Your task to perform on an android device: check android version Image 0: 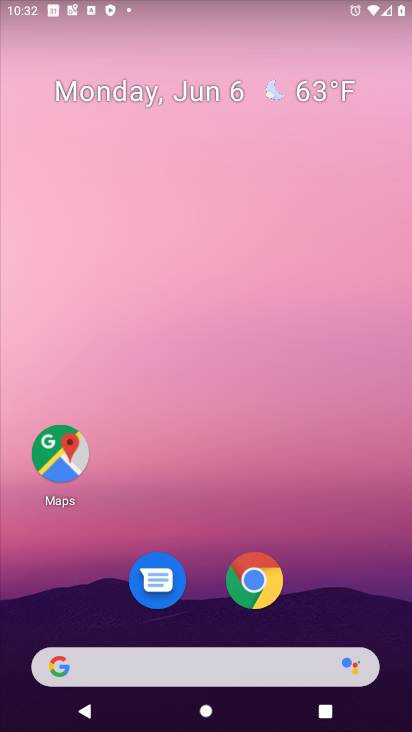
Step 0: drag from (348, 605) to (276, 33)
Your task to perform on an android device: check android version Image 1: 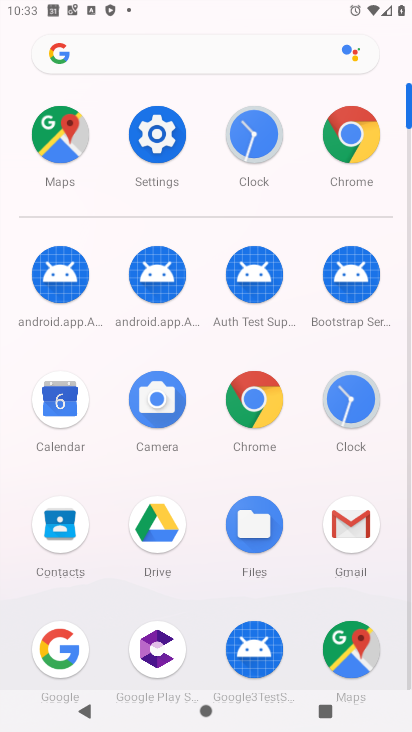
Step 1: click (175, 136)
Your task to perform on an android device: check android version Image 2: 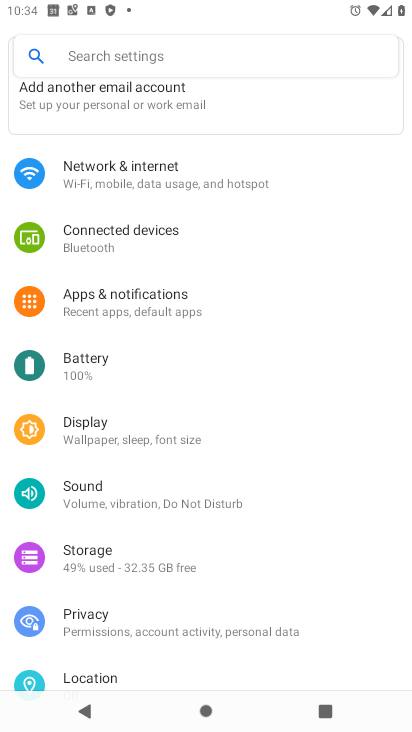
Step 2: drag from (116, 611) to (158, 12)
Your task to perform on an android device: check android version Image 3: 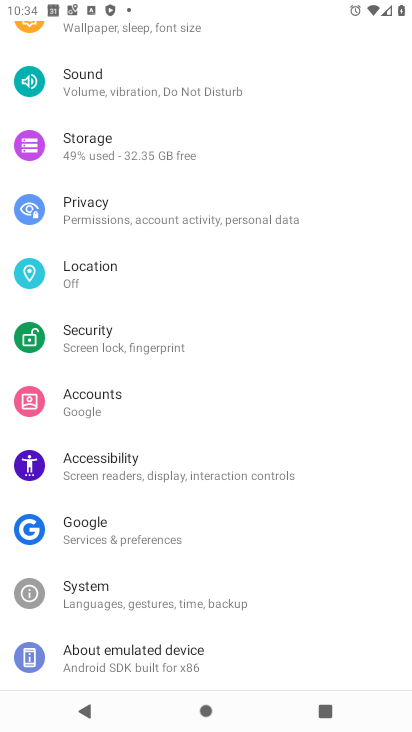
Step 3: drag from (216, 612) to (274, 153)
Your task to perform on an android device: check android version Image 4: 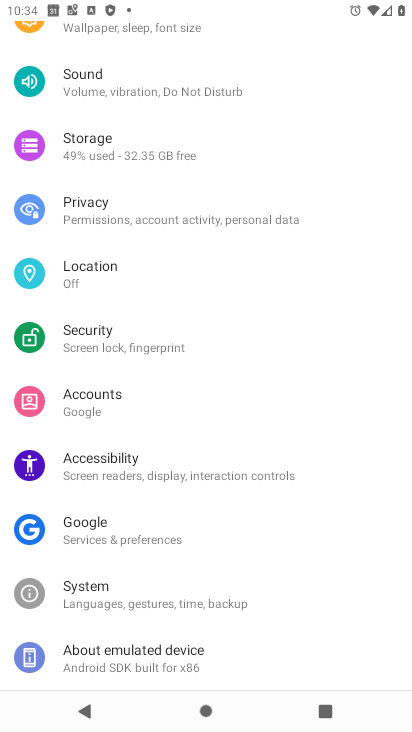
Step 4: drag from (219, 620) to (245, 165)
Your task to perform on an android device: check android version Image 5: 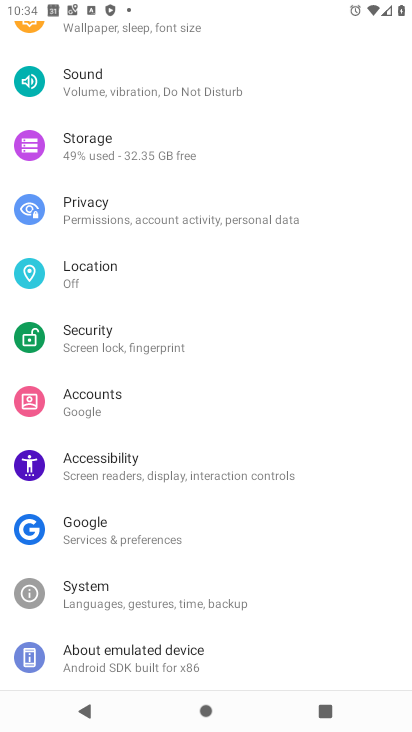
Step 5: drag from (209, 613) to (209, 119)
Your task to perform on an android device: check android version Image 6: 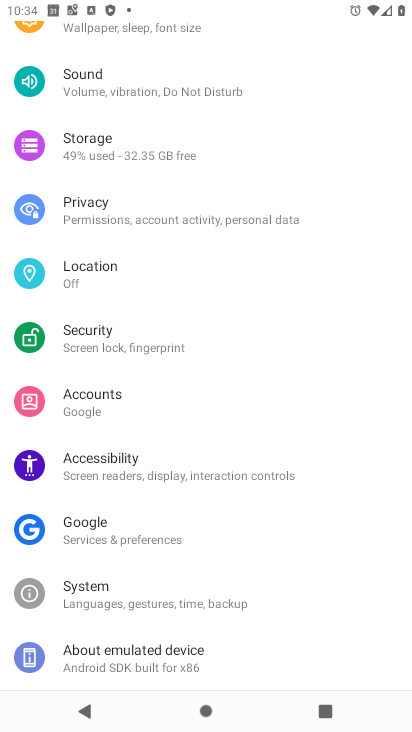
Step 6: click (158, 654)
Your task to perform on an android device: check android version Image 7: 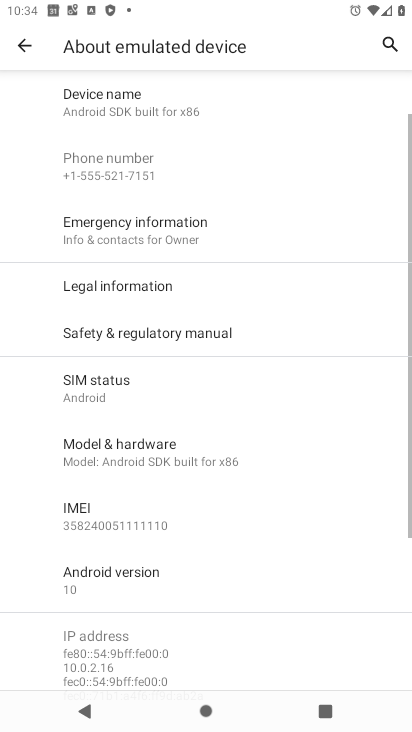
Step 7: drag from (130, 593) to (147, 58)
Your task to perform on an android device: check android version Image 8: 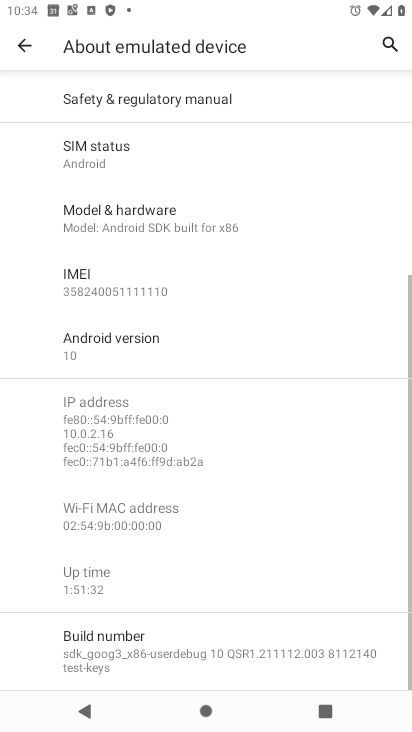
Step 8: click (82, 345)
Your task to perform on an android device: check android version Image 9: 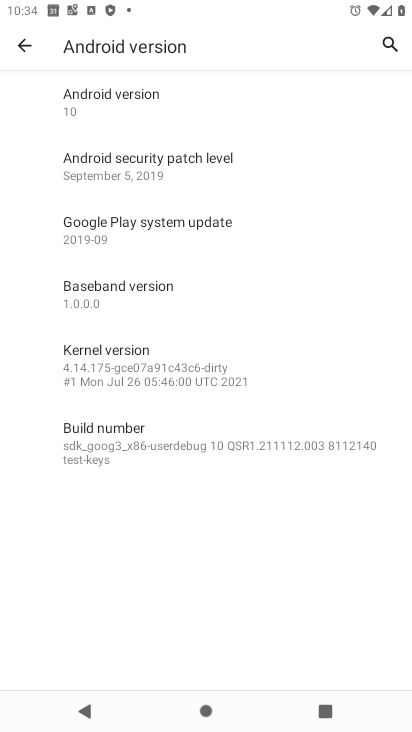
Step 9: click (109, 116)
Your task to perform on an android device: check android version Image 10: 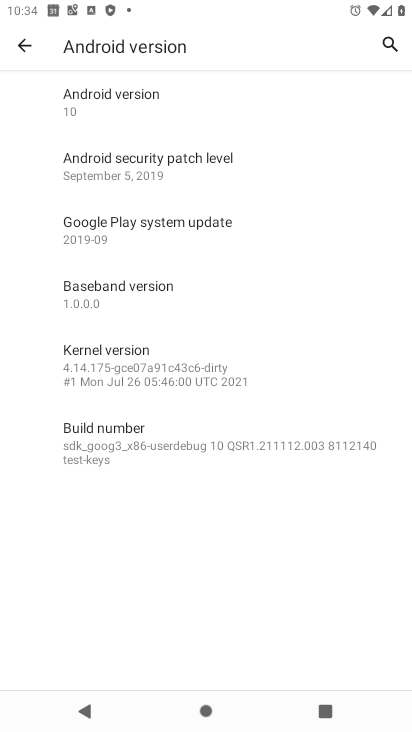
Step 10: task complete